Your task to perform on an android device: empty trash in the gmail app Image 0: 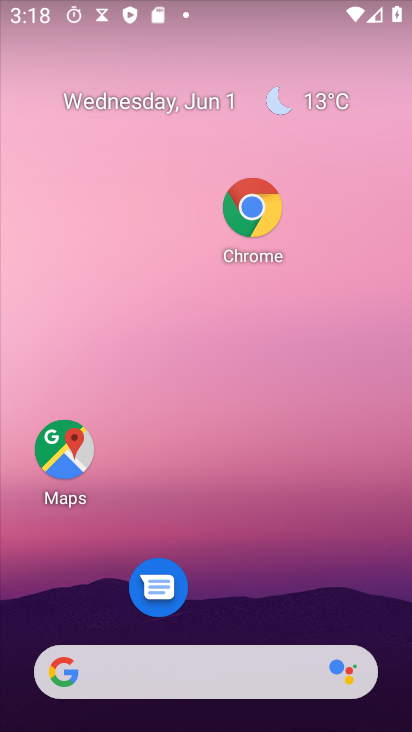
Step 0: drag from (221, 676) to (81, 94)
Your task to perform on an android device: empty trash in the gmail app Image 1: 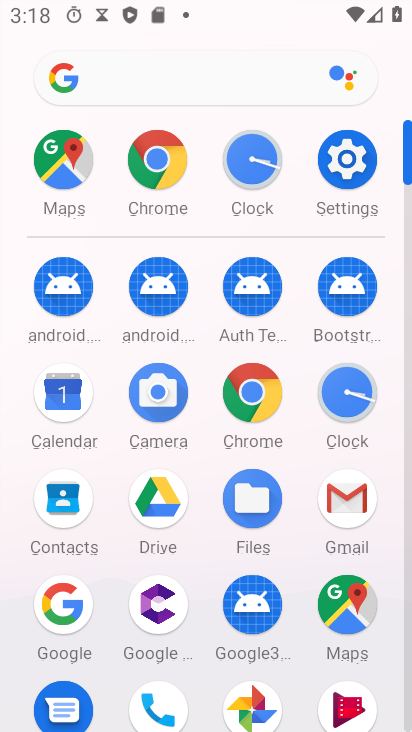
Step 1: click (341, 506)
Your task to perform on an android device: empty trash in the gmail app Image 2: 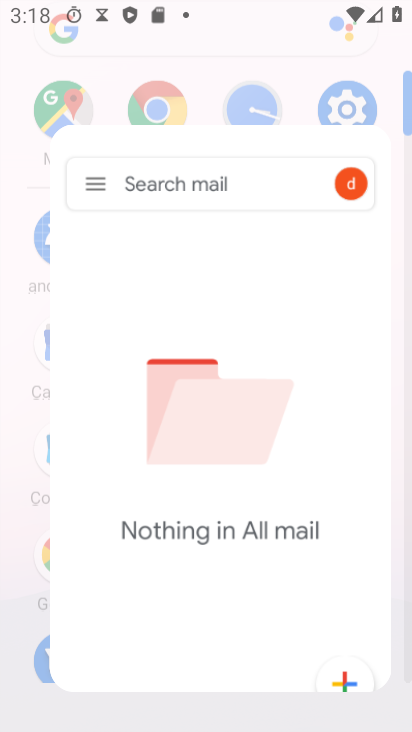
Step 2: click (341, 506)
Your task to perform on an android device: empty trash in the gmail app Image 3: 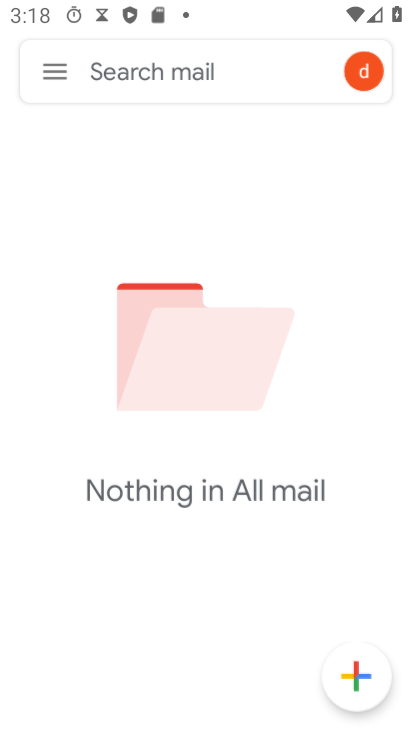
Step 3: click (341, 506)
Your task to perform on an android device: empty trash in the gmail app Image 4: 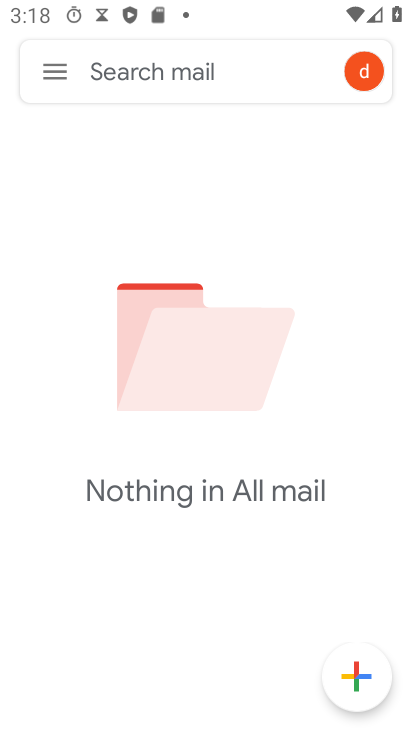
Step 4: click (341, 506)
Your task to perform on an android device: empty trash in the gmail app Image 5: 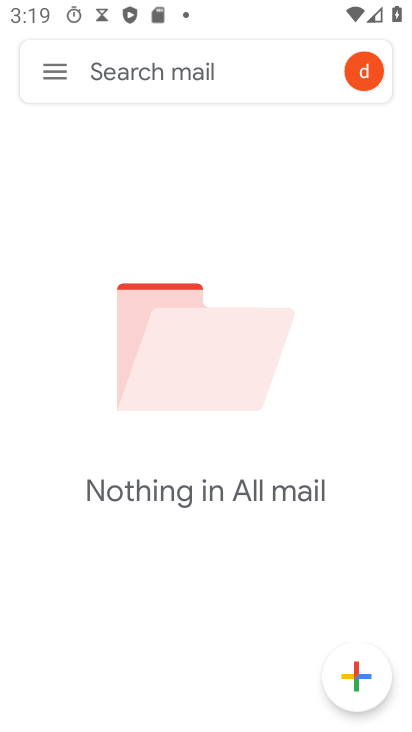
Step 5: click (59, 66)
Your task to perform on an android device: empty trash in the gmail app Image 6: 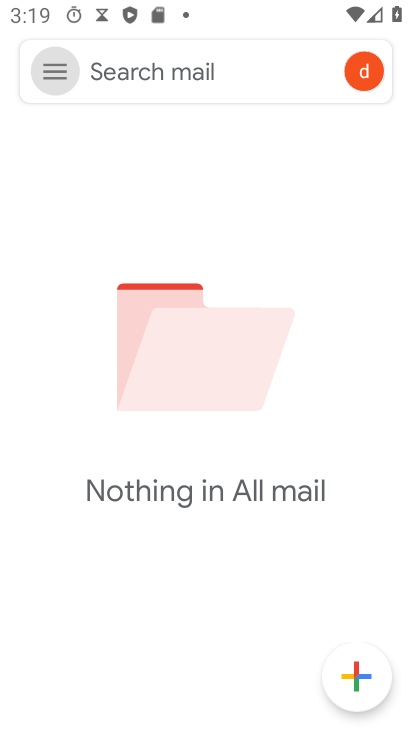
Step 6: click (59, 66)
Your task to perform on an android device: empty trash in the gmail app Image 7: 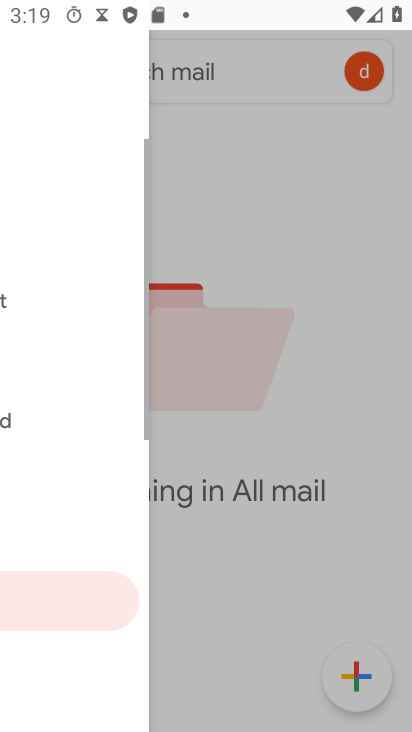
Step 7: click (59, 66)
Your task to perform on an android device: empty trash in the gmail app Image 8: 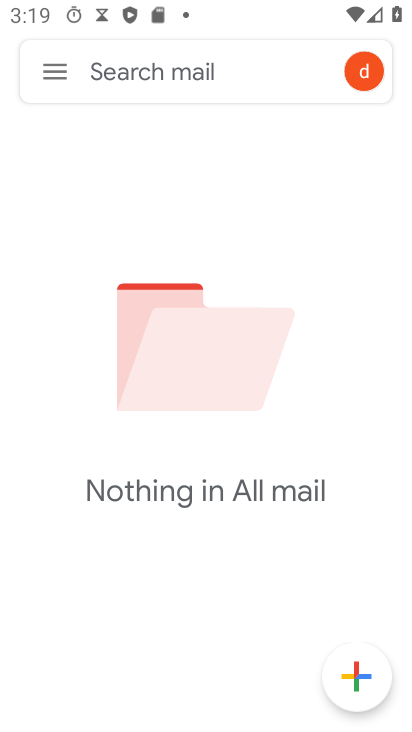
Step 8: click (63, 71)
Your task to perform on an android device: empty trash in the gmail app Image 9: 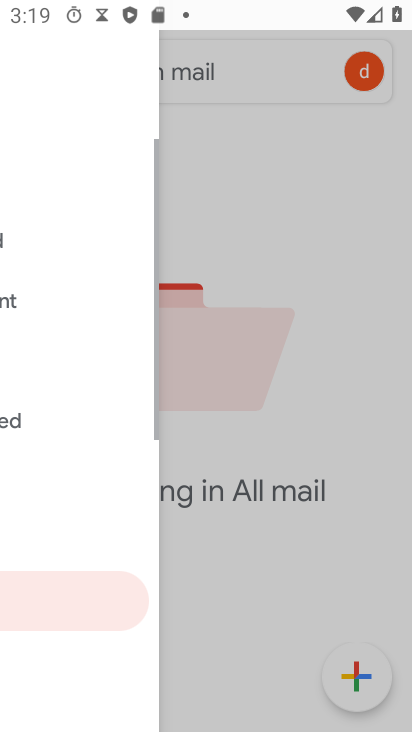
Step 9: click (63, 71)
Your task to perform on an android device: empty trash in the gmail app Image 10: 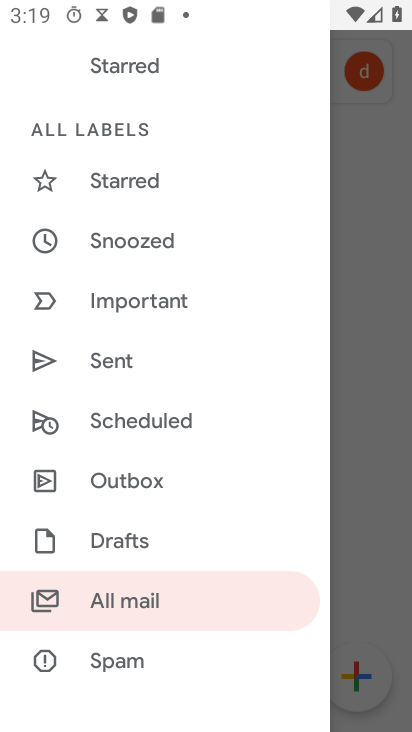
Step 10: drag from (135, 430) to (115, 113)
Your task to perform on an android device: empty trash in the gmail app Image 11: 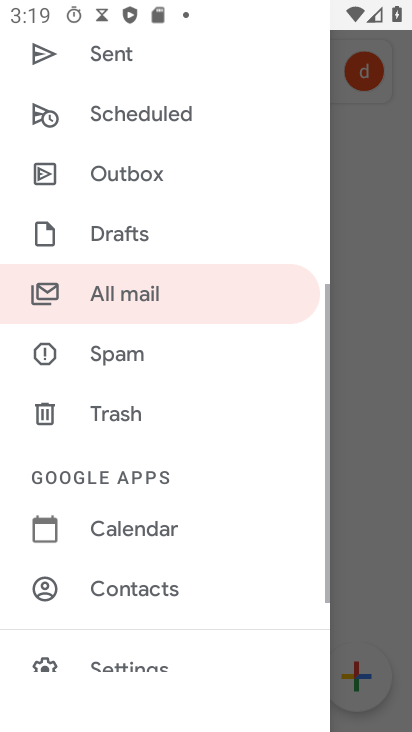
Step 11: drag from (165, 431) to (88, 66)
Your task to perform on an android device: empty trash in the gmail app Image 12: 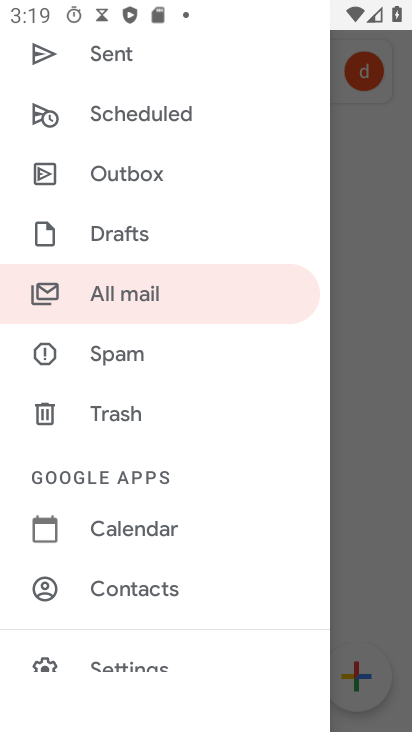
Step 12: click (115, 417)
Your task to perform on an android device: empty trash in the gmail app Image 13: 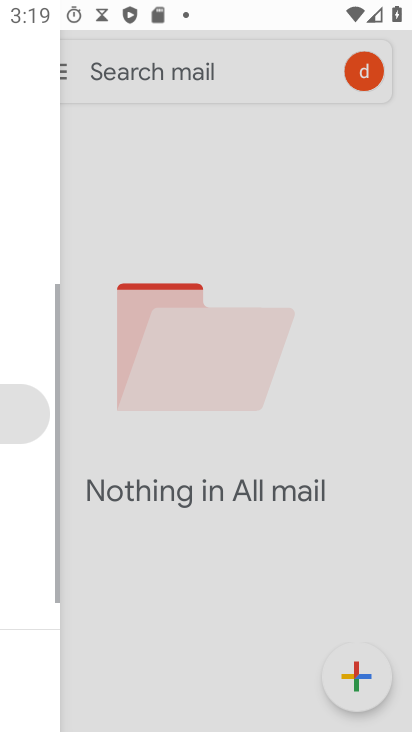
Step 13: click (114, 418)
Your task to perform on an android device: empty trash in the gmail app Image 14: 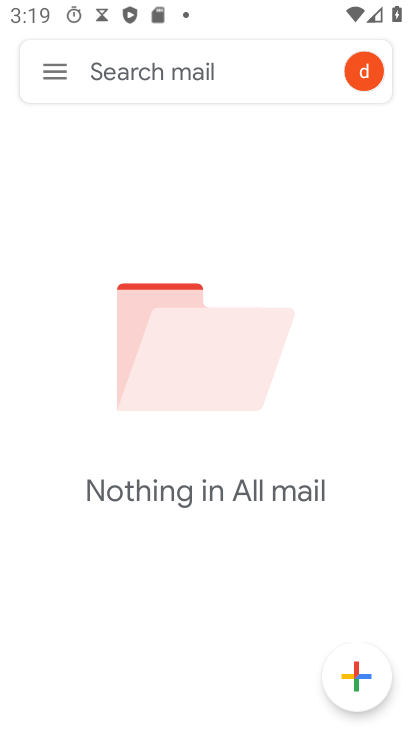
Step 14: click (114, 418)
Your task to perform on an android device: empty trash in the gmail app Image 15: 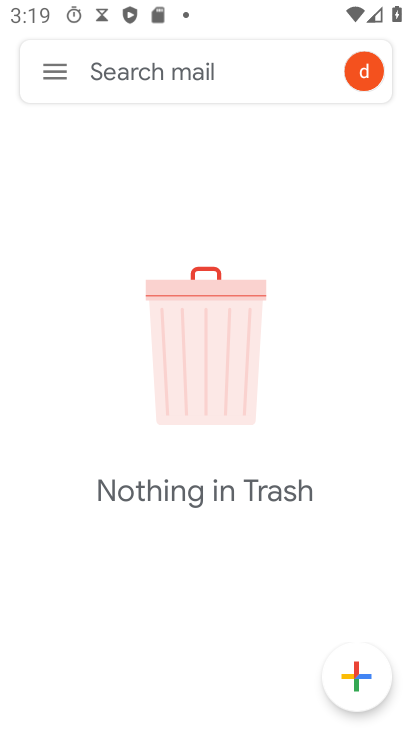
Step 15: task complete